Your task to perform on an android device: turn on data saver in the chrome app Image 0: 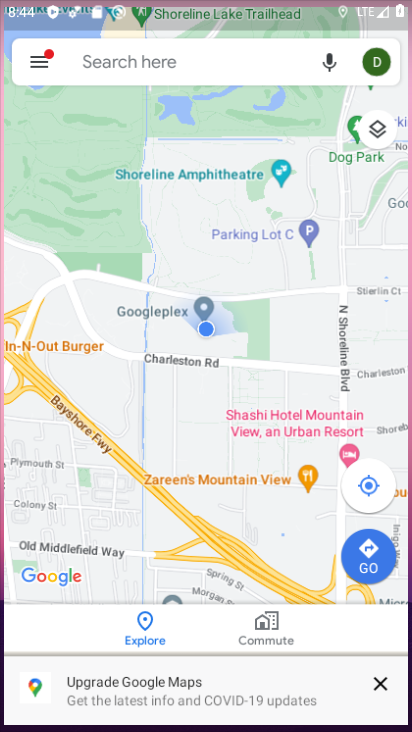
Step 0: drag from (140, 727) to (305, 188)
Your task to perform on an android device: turn on data saver in the chrome app Image 1: 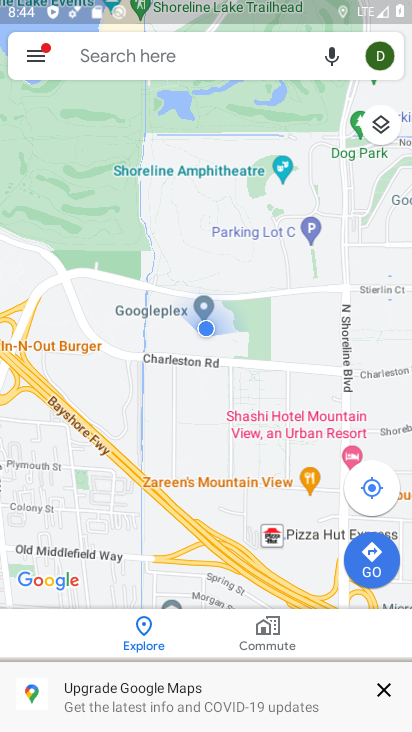
Step 1: press home button
Your task to perform on an android device: turn on data saver in the chrome app Image 2: 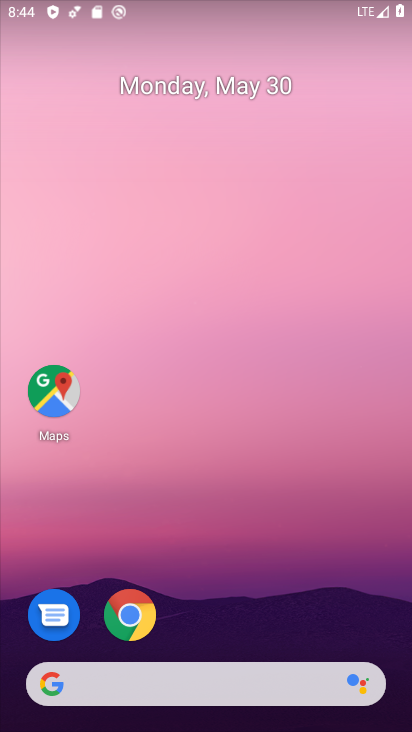
Step 2: click (134, 598)
Your task to perform on an android device: turn on data saver in the chrome app Image 3: 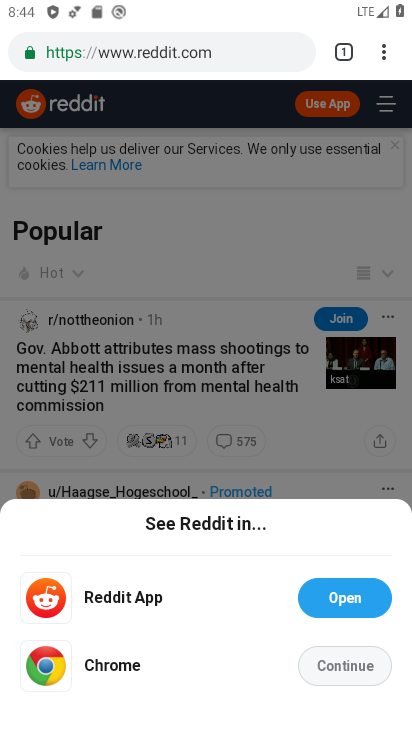
Step 3: click (384, 55)
Your task to perform on an android device: turn on data saver in the chrome app Image 4: 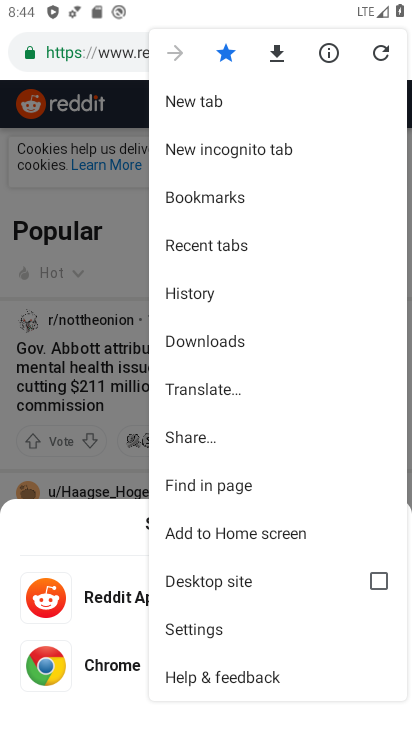
Step 4: click (188, 635)
Your task to perform on an android device: turn on data saver in the chrome app Image 5: 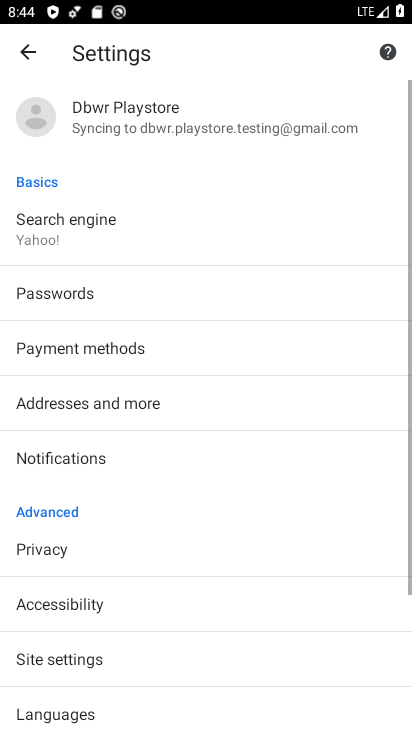
Step 5: drag from (188, 635) to (244, 369)
Your task to perform on an android device: turn on data saver in the chrome app Image 6: 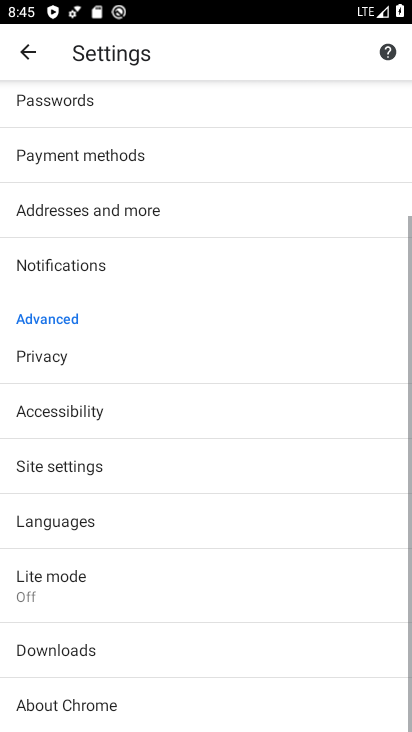
Step 6: click (155, 605)
Your task to perform on an android device: turn on data saver in the chrome app Image 7: 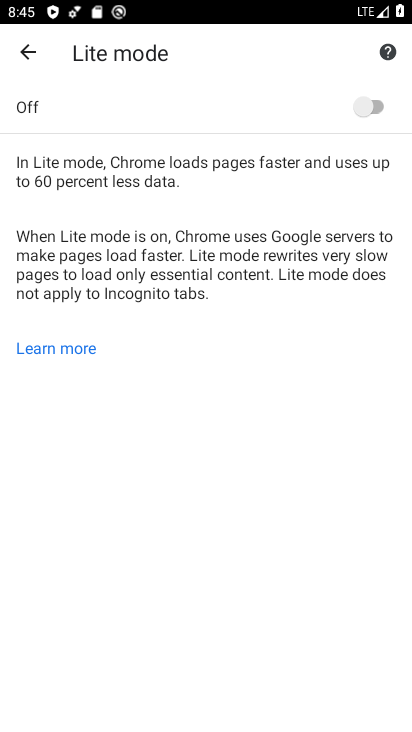
Step 7: click (372, 112)
Your task to perform on an android device: turn on data saver in the chrome app Image 8: 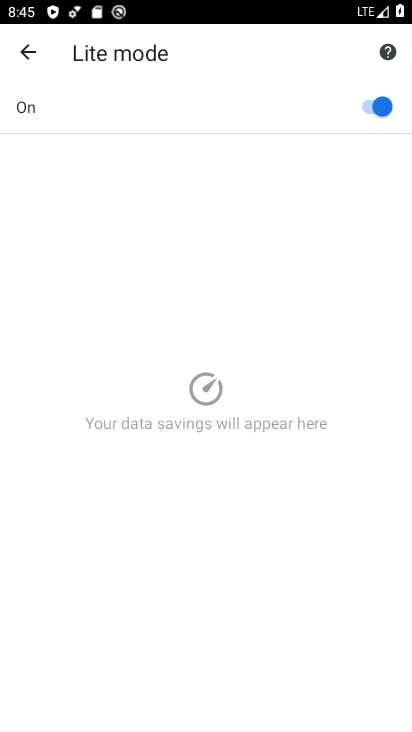
Step 8: task complete